Your task to perform on an android device: Go to Yahoo.com Image 0: 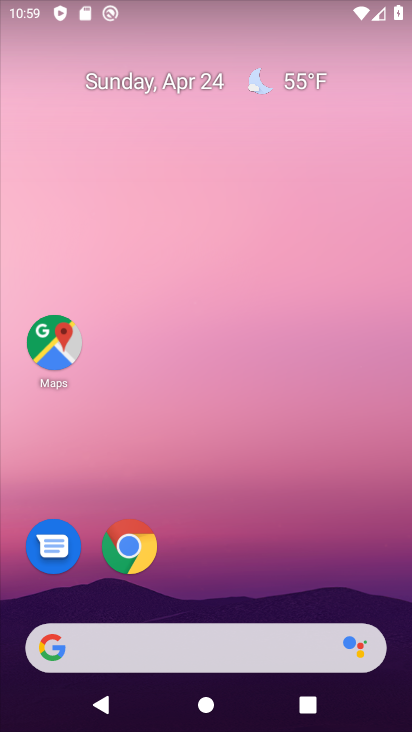
Step 0: click (129, 543)
Your task to perform on an android device: Go to Yahoo.com Image 1: 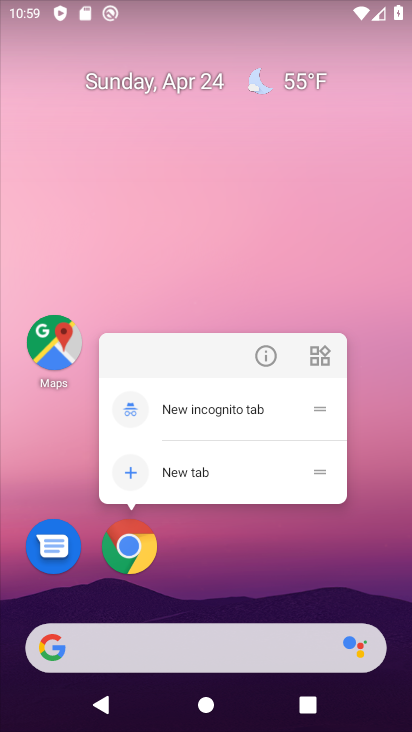
Step 1: click (129, 547)
Your task to perform on an android device: Go to Yahoo.com Image 2: 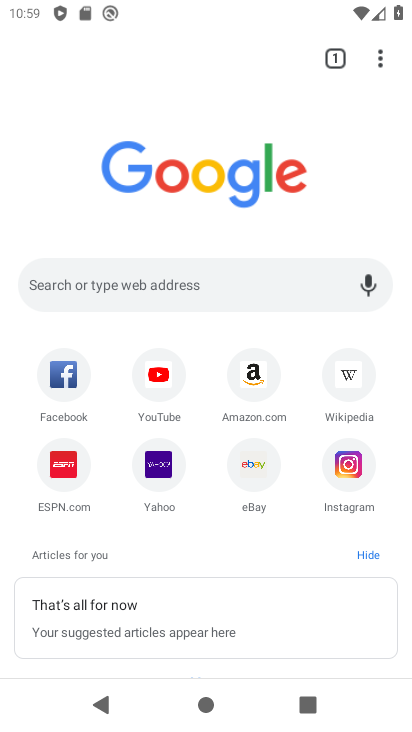
Step 2: click (168, 285)
Your task to perform on an android device: Go to Yahoo.com Image 3: 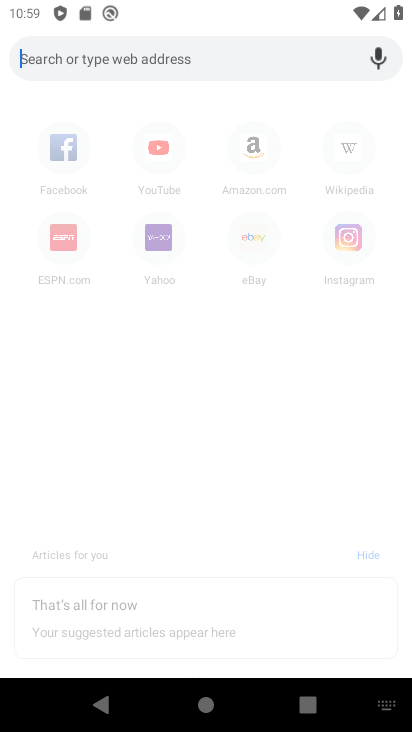
Step 3: click (187, 51)
Your task to perform on an android device: Go to Yahoo.com Image 4: 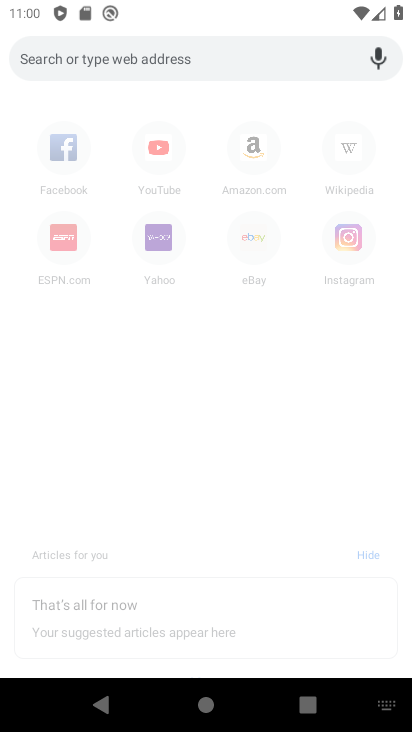
Step 4: type "Yahoo.com"
Your task to perform on an android device: Go to Yahoo.com Image 5: 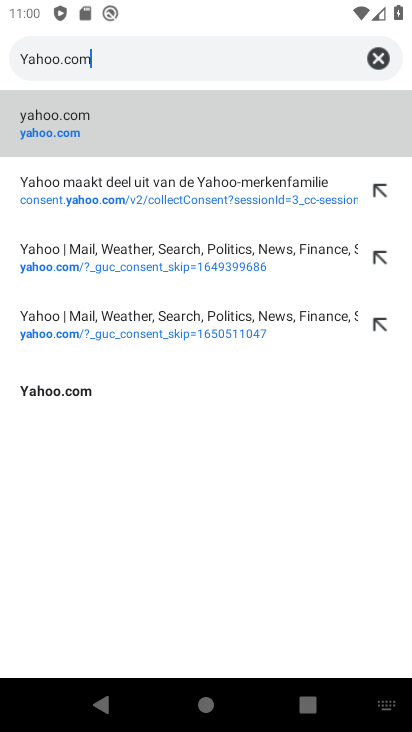
Step 5: type ""
Your task to perform on an android device: Go to Yahoo.com Image 6: 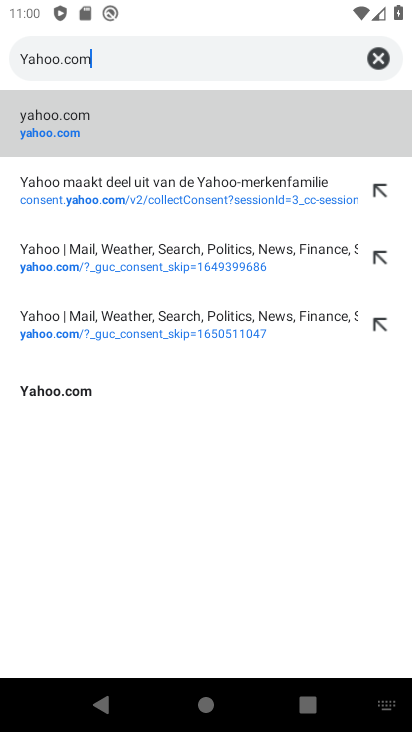
Step 6: click (56, 388)
Your task to perform on an android device: Go to Yahoo.com Image 7: 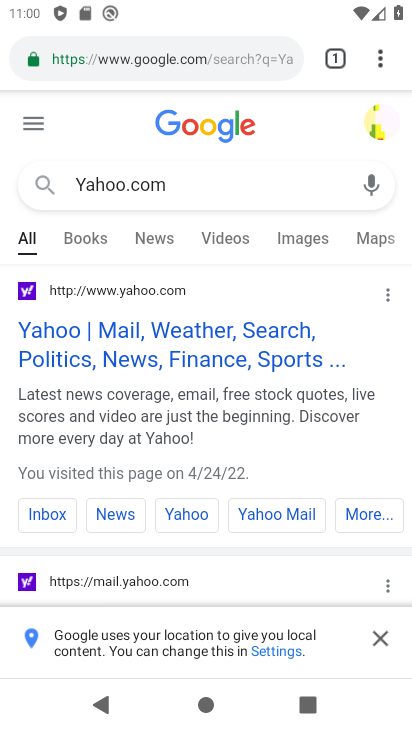
Step 7: click (378, 640)
Your task to perform on an android device: Go to Yahoo.com Image 8: 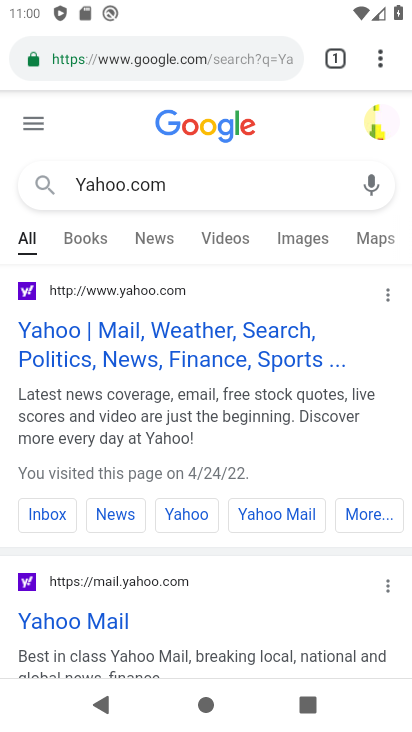
Step 8: task complete